Your task to perform on an android device: Go to privacy settings Image 0: 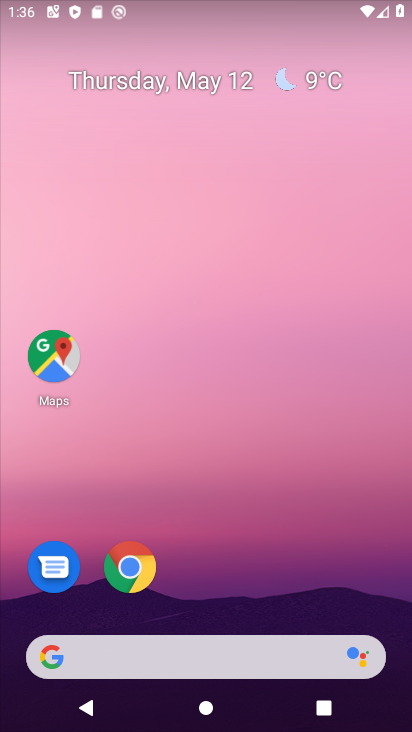
Step 0: drag from (254, 567) to (300, 148)
Your task to perform on an android device: Go to privacy settings Image 1: 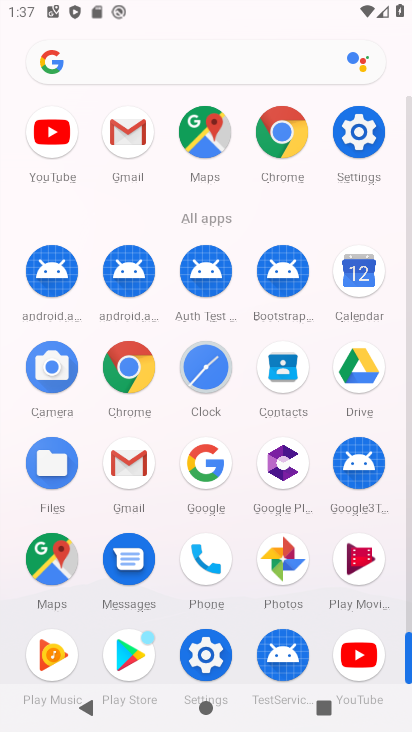
Step 1: click (201, 666)
Your task to perform on an android device: Go to privacy settings Image 2: 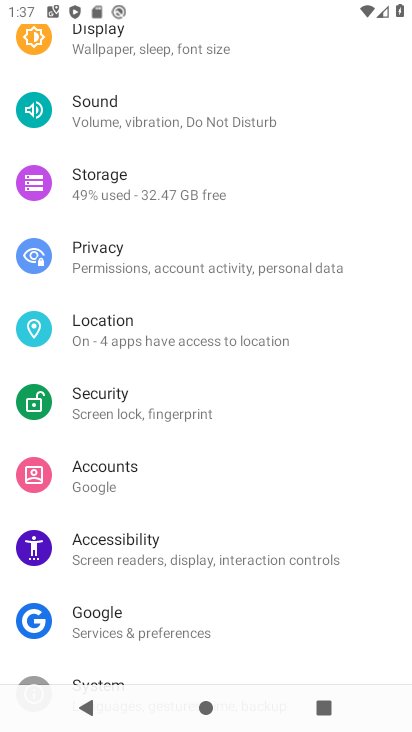
Step 2: click (108, 271)
Your task to perform on an android device: Go to privacy settings Image 3: 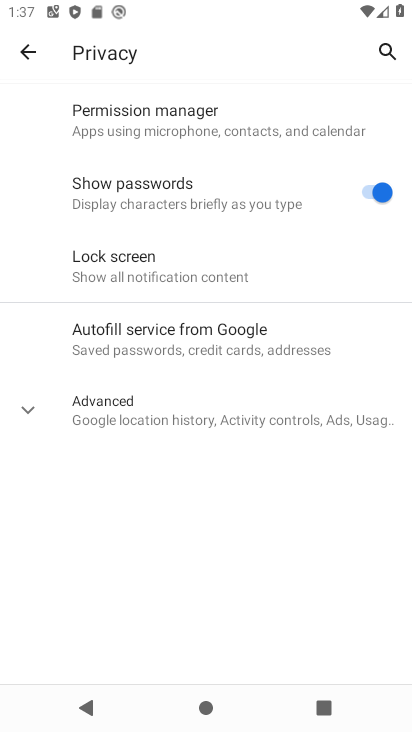
Step 3: task complete